Your task to perform on an android device: check battery use Image 0: 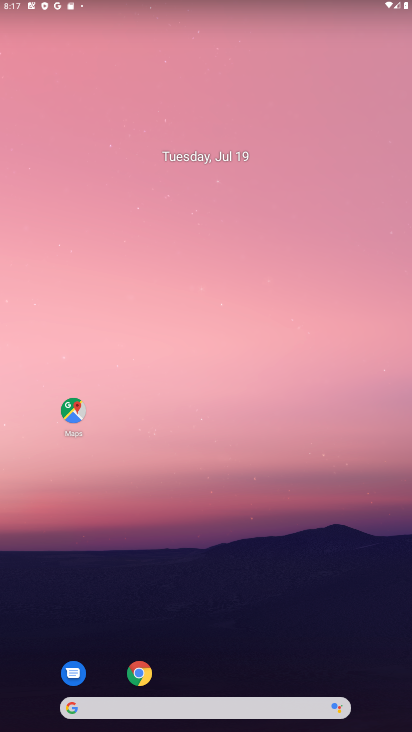
Step 0: drag from (239, 668) to (243, 159)
Your task to perform on an android device: check battery use Image 1: 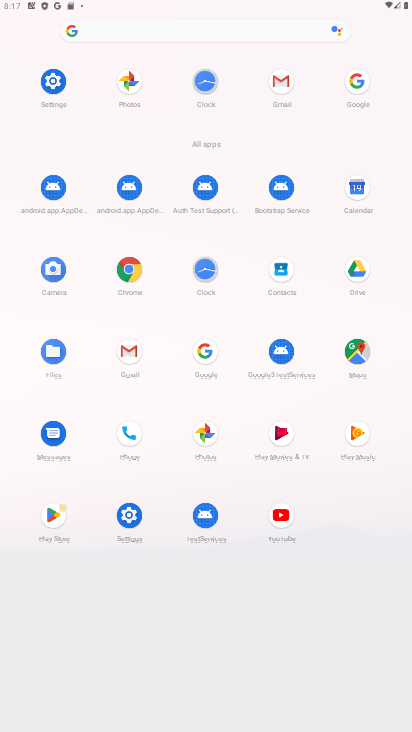
Step 1: click (68, 90)
Your task to perform on an android device: check battery use Image 2: 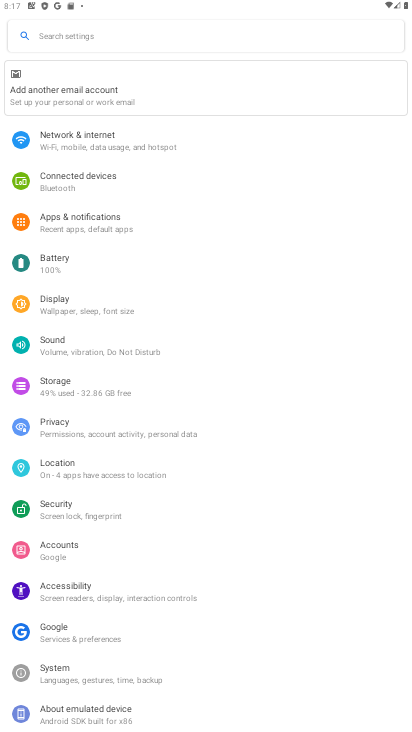
Step 2: click (67, 254)
Your task to perform on an android device: check battery use Image 3: 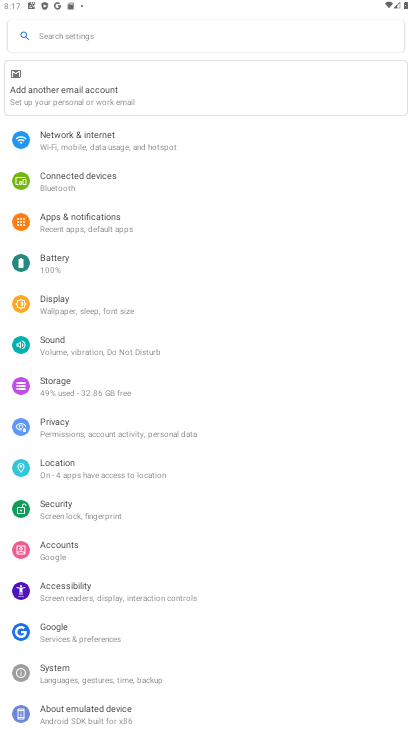
Step 3: task complete